Your task to perform on an android device: move a message to another label in the gmail app Image 0: 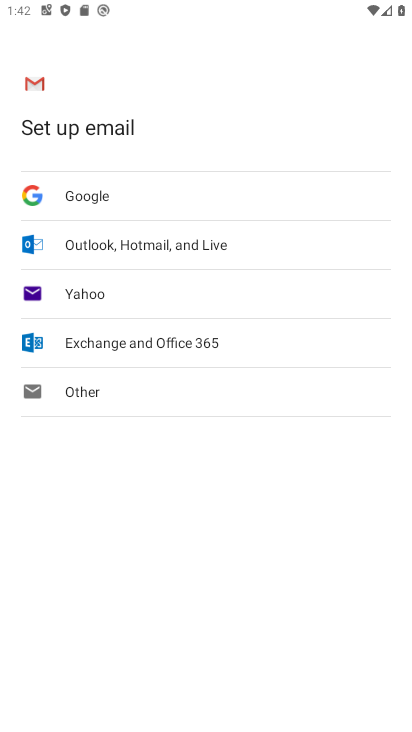
Step 0: press home button
Your task to perform on an android device: move a message to another label in the gmail app Image 1: 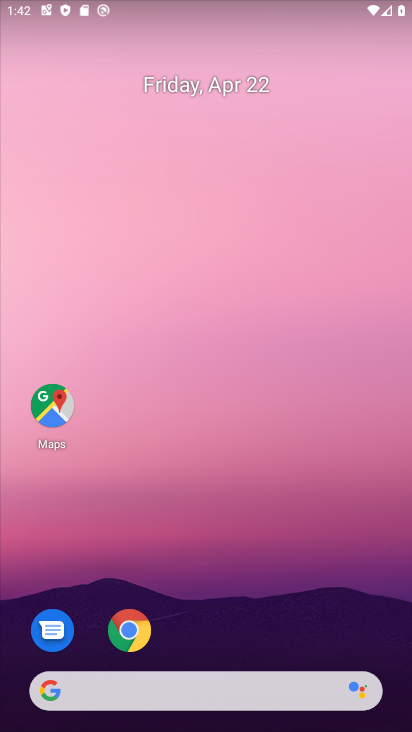
Step 1: drag from (342, 318) to (330, 100)
Your task to perform on an android device: move a message to another label in the gmail app Image 2: 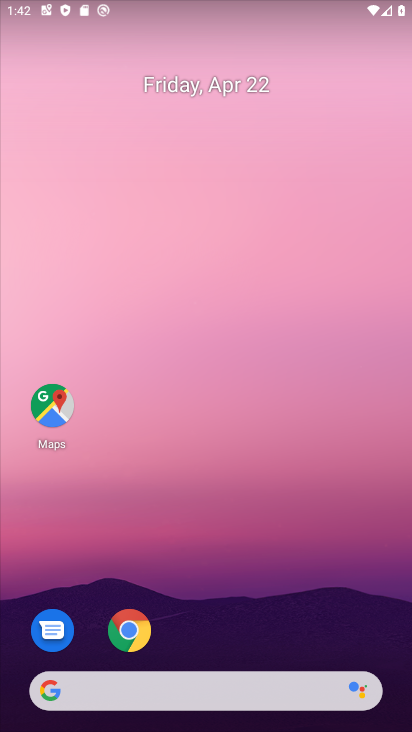
Step 2: drag from (379, 428) to (366, 213)
Your task to perform on an android device: move a message to another label in the gmail app Image 3: 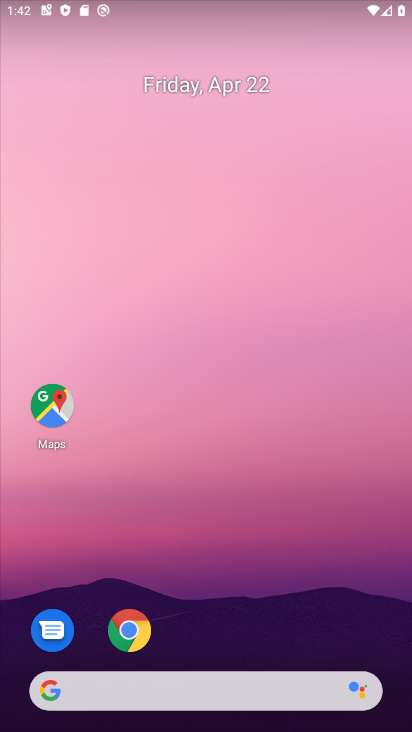
Step 3: drag from (373, 479) to (361, 29)
Your task to perform on an android device: move a message to another label in the gmail app Image 4: 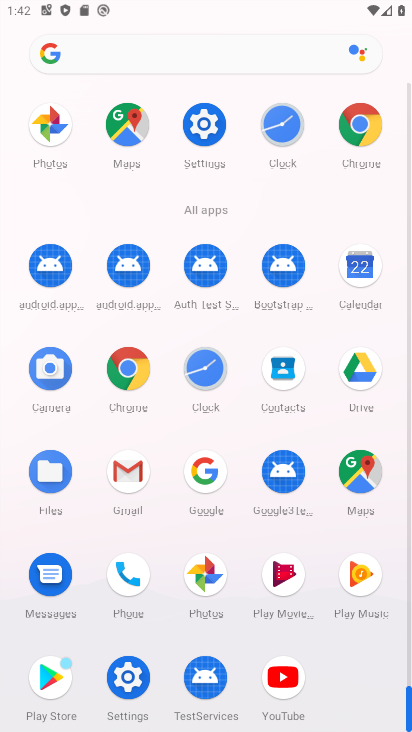
Step 4: click (110, 475)
Your task to perform on an android device: move a message to another label in the gmail app Image 5: 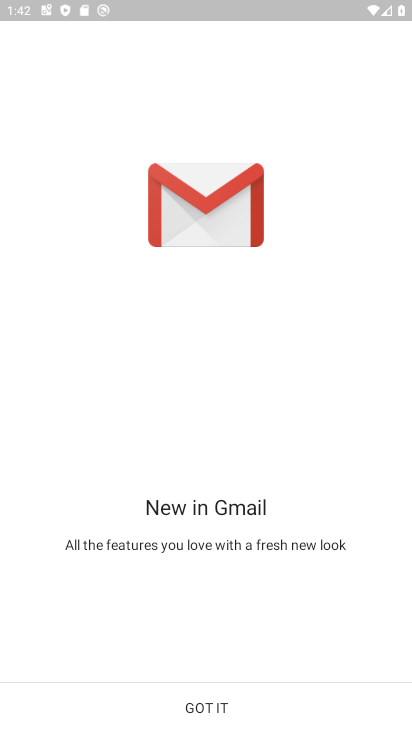
Step 5: click (196, 699)
Your task to perform on an android device: move a message to another label in the gmail app Image 6: 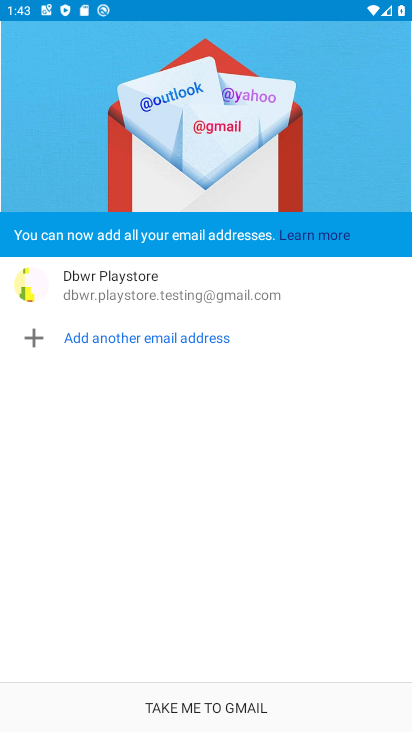
Step 6: click (196, 700)
Your task to perform on an android device: move a message to another label in the gmail app Image 7: 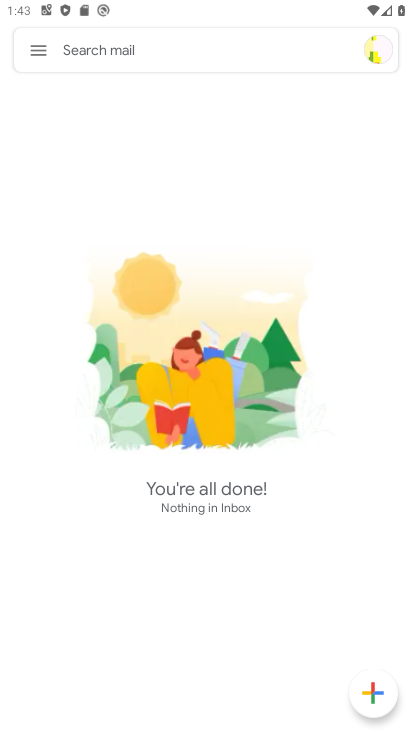
Step 7: click (39, 50)
Your task to perform on an android device: move a message to another label in the gmail app Image 8: 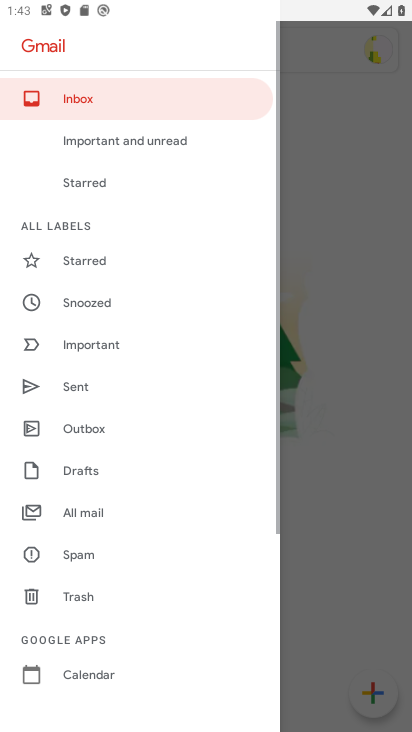
Step 8: click (83, 96)
Your task to perform on an android device: move a message to another label in the gmail app Image 9: 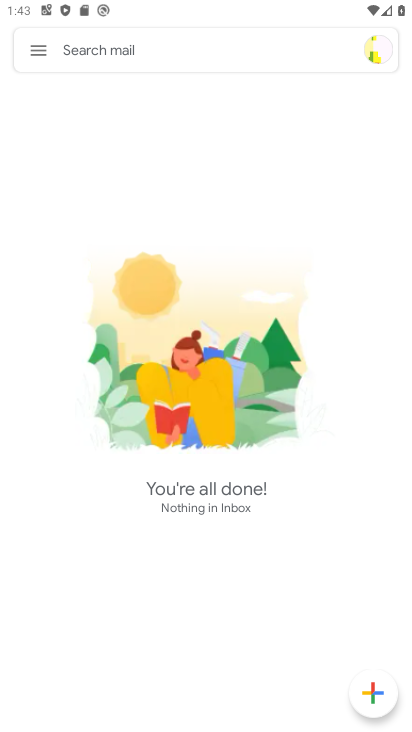
Step 9: task complete